Your task to perform on an android device: turn off airplane mode Image 0: 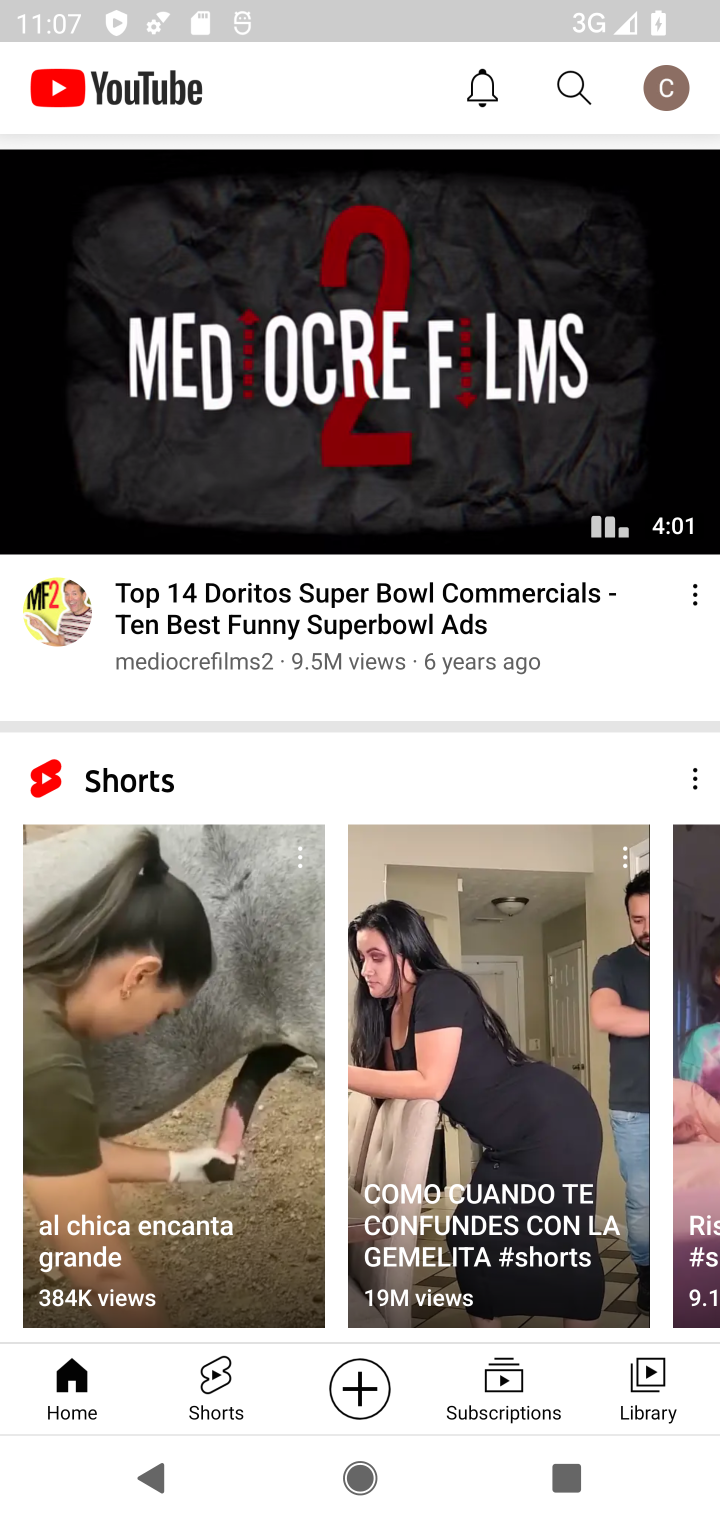
Step 0: press home button
Your task to perform on an android device: turn off airplane mode Image 1: 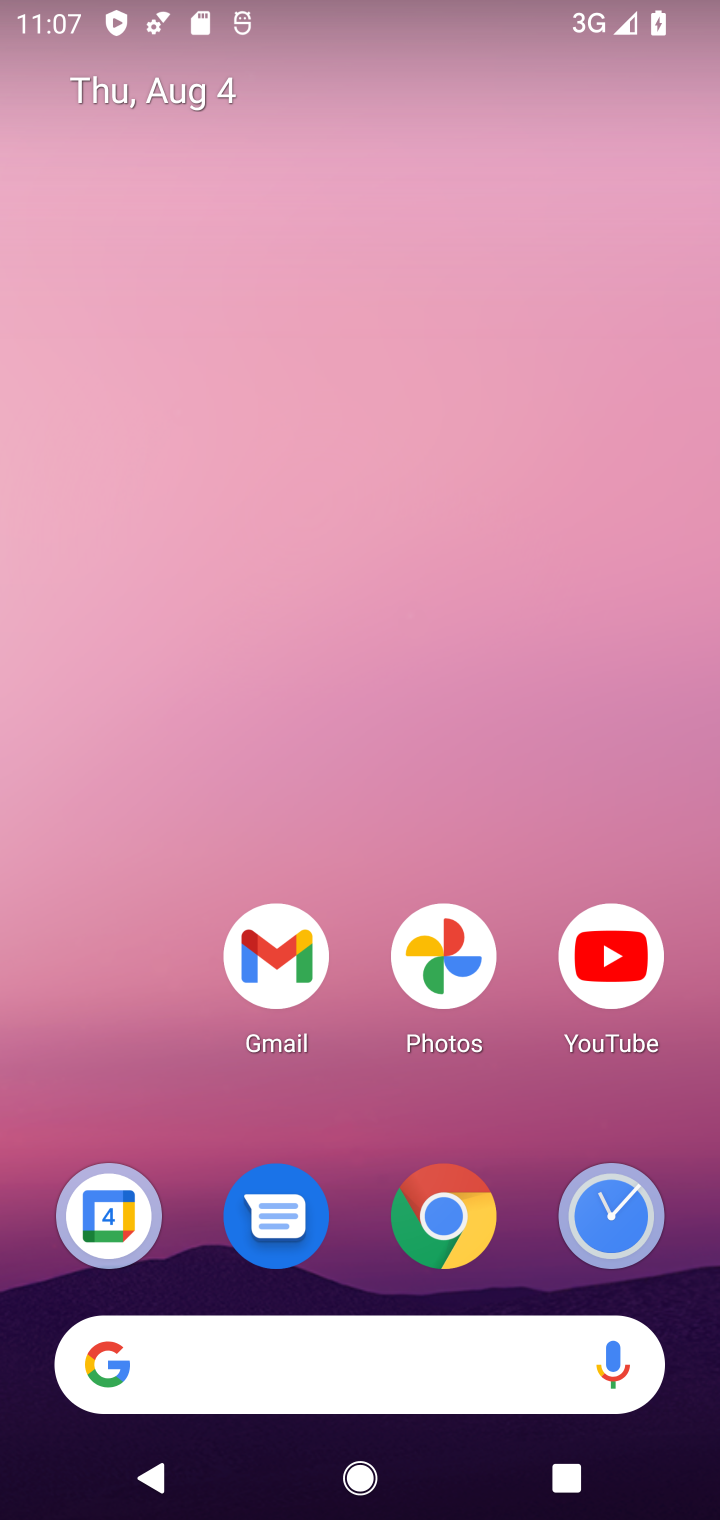
Step 1: drag from (151, 1033) to (234, 7)
Your task to perform on an android device: turn off airplane mode Image 2: 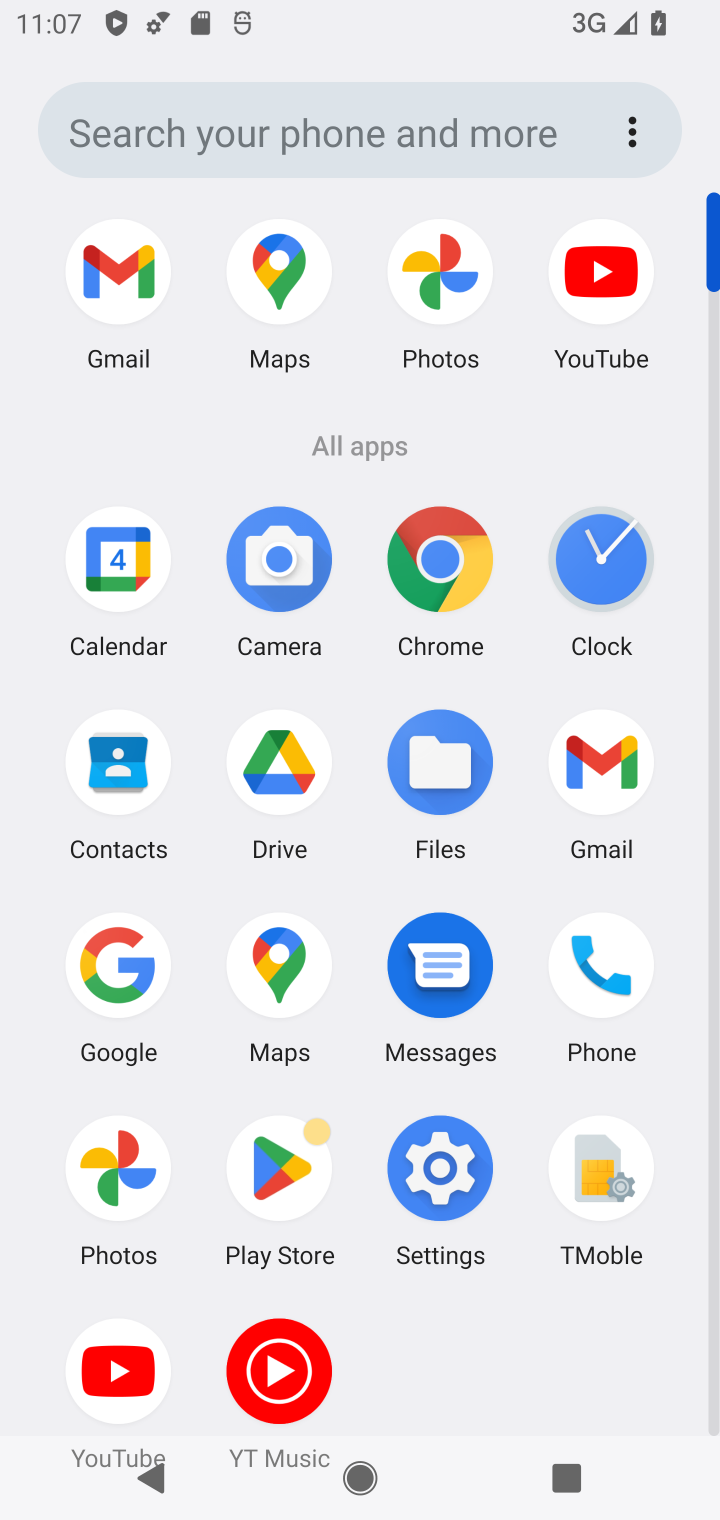
Step 2: click (437, 1171)
Your task to perform on an android device: turn off airplane mode Image 3: 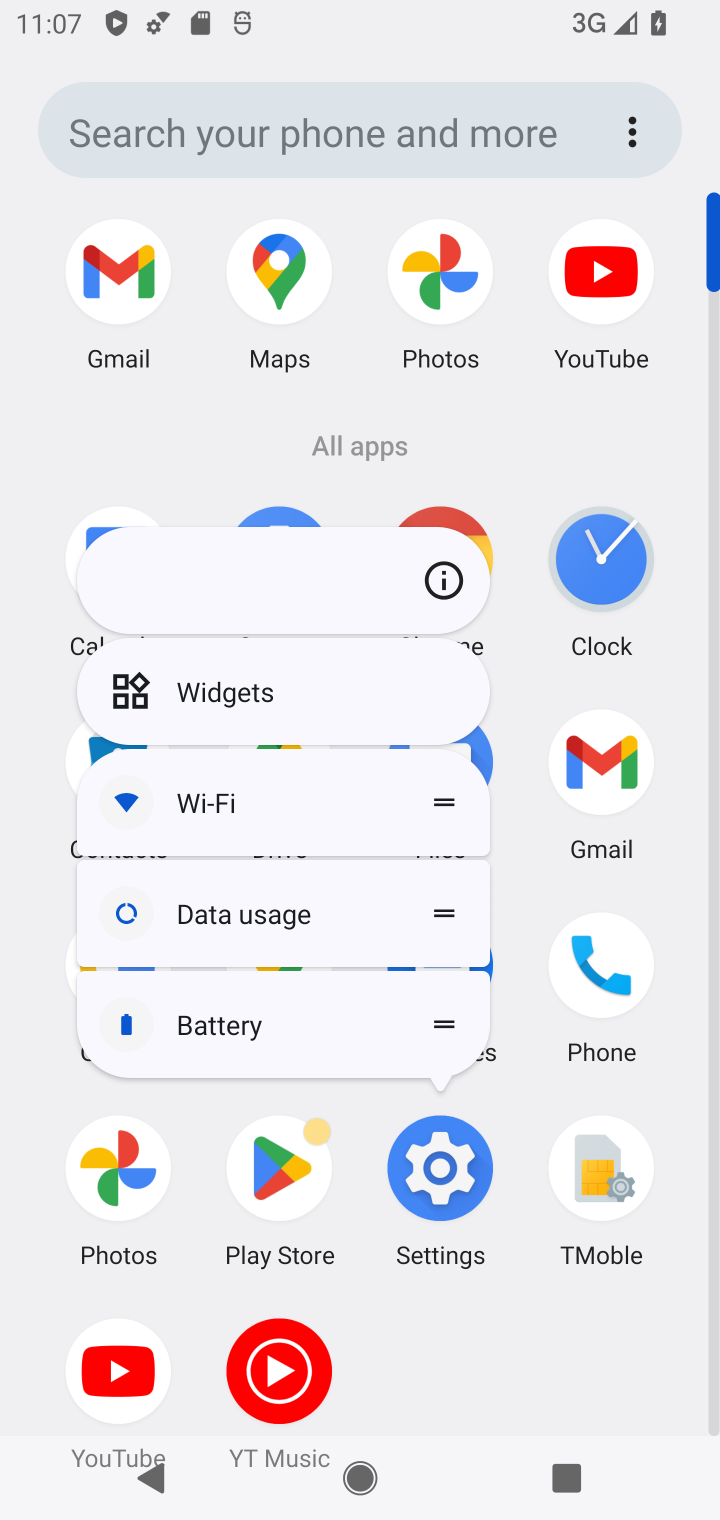
Step 3: click (437, 1175)
Your task to perform on an android device: turn off airplane mode Image 4: 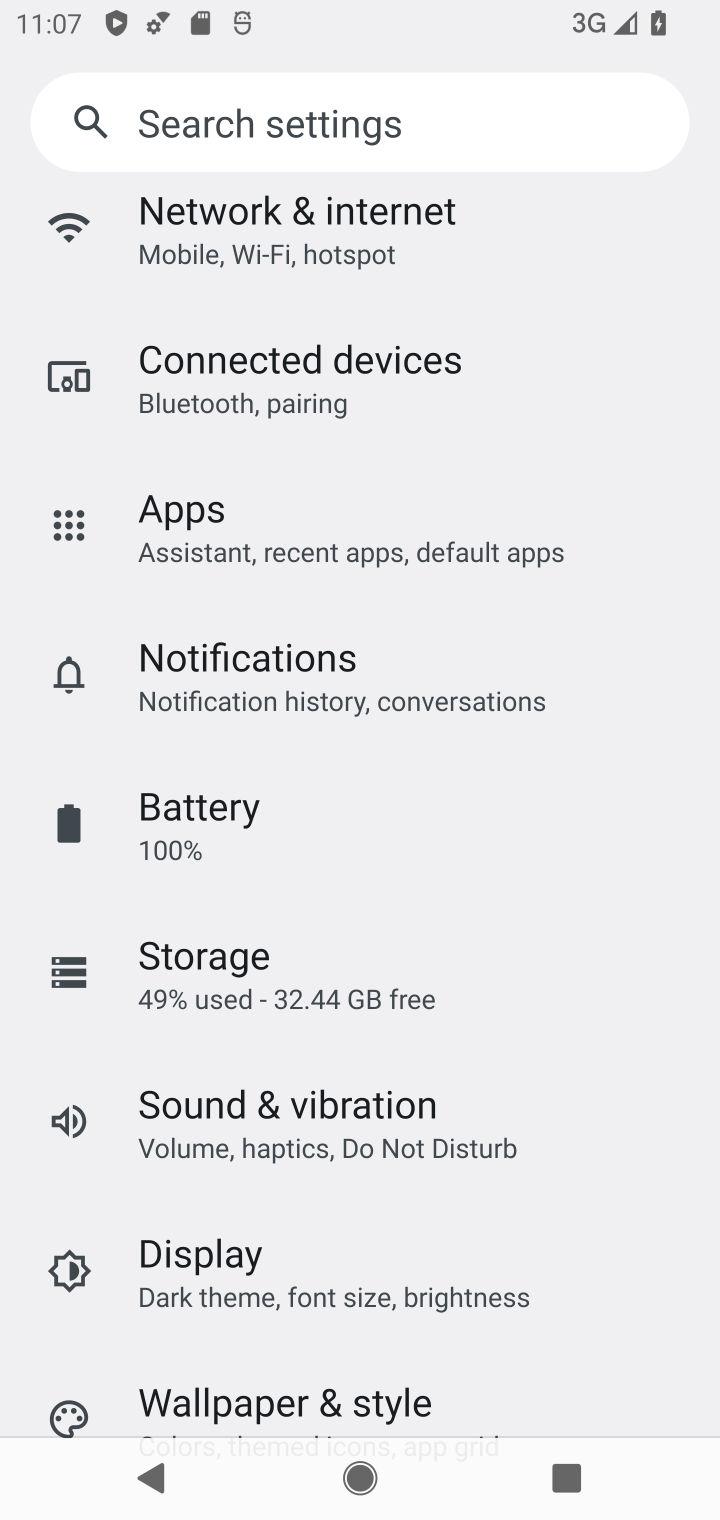
Step 4: click (349, 230)
Your task to perform on an android device: turn off airplane mode Image 5: 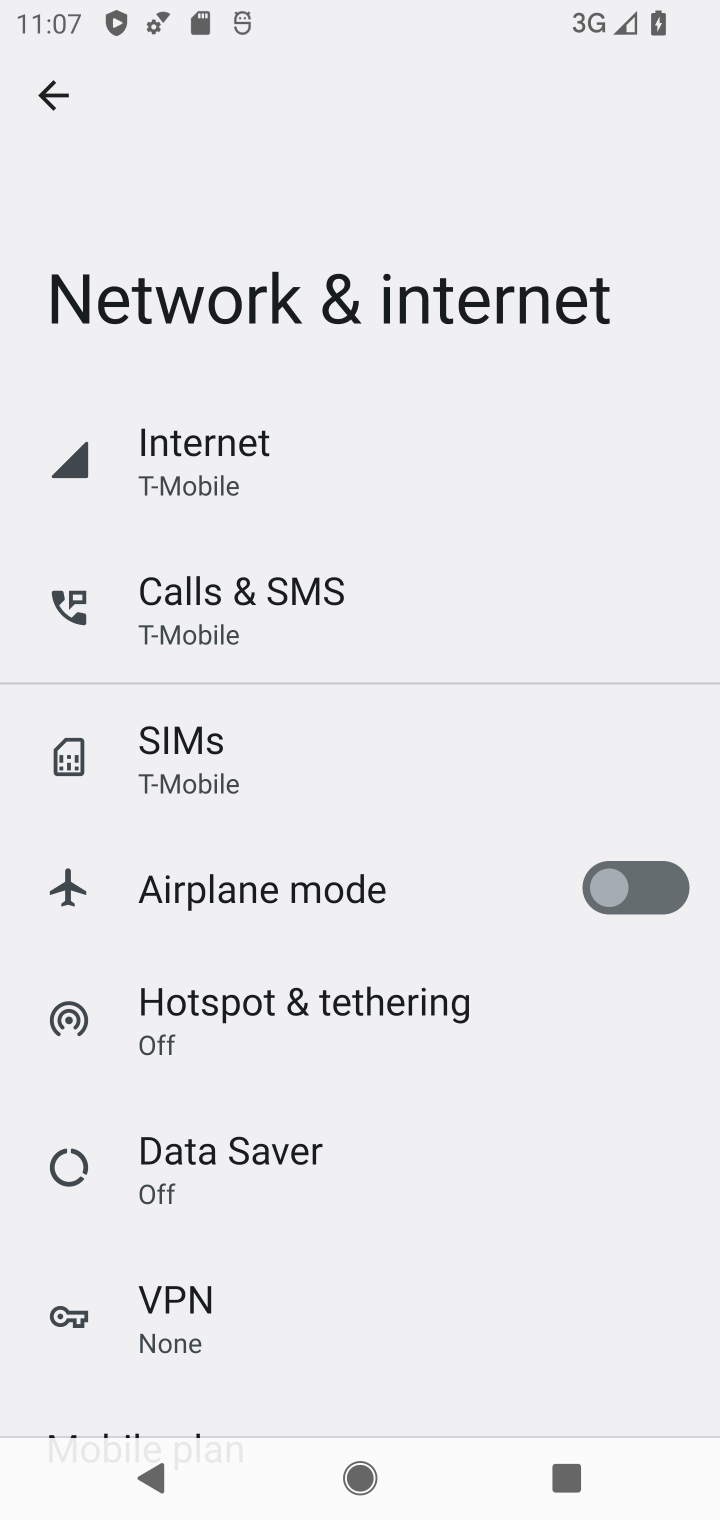
Step 5: task complete